Your task to perform on an android device: Clear the cart on amazon.com. Image 0: 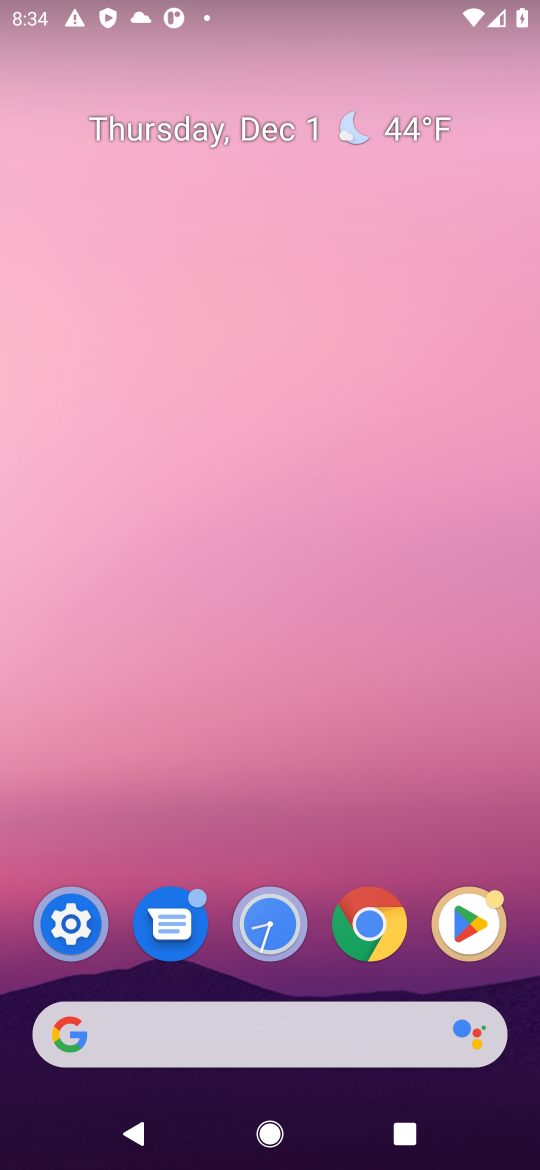
Step 0: click (189, 1006)
Your task to perform on an android device: Clear the cart on amazon.com. Image 1: 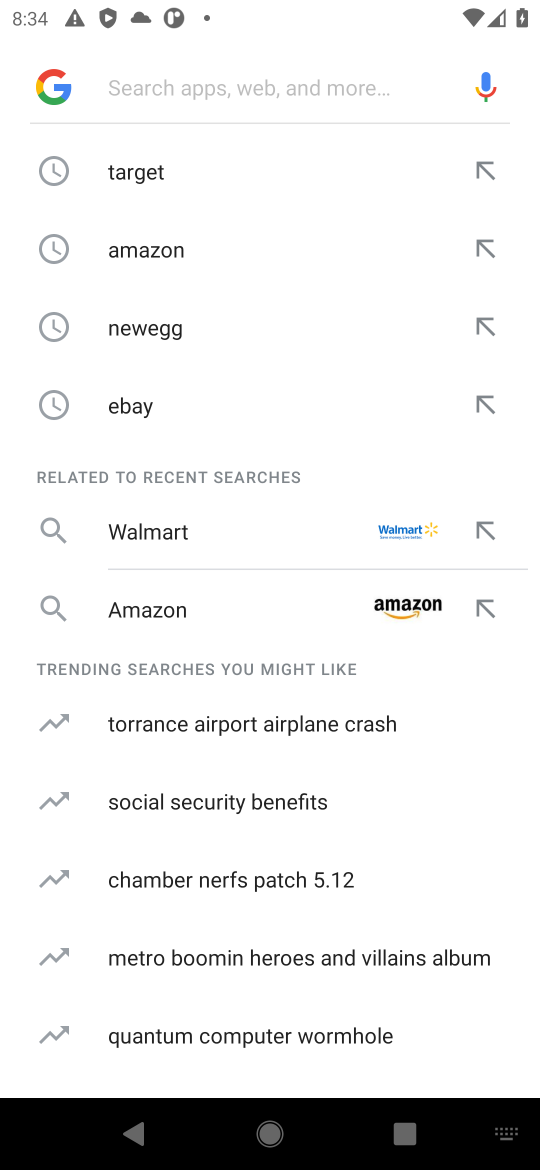
Step 1: type "amazon"
Your task to perform on an android device: Clear the cart on amazon.com. Image 2: 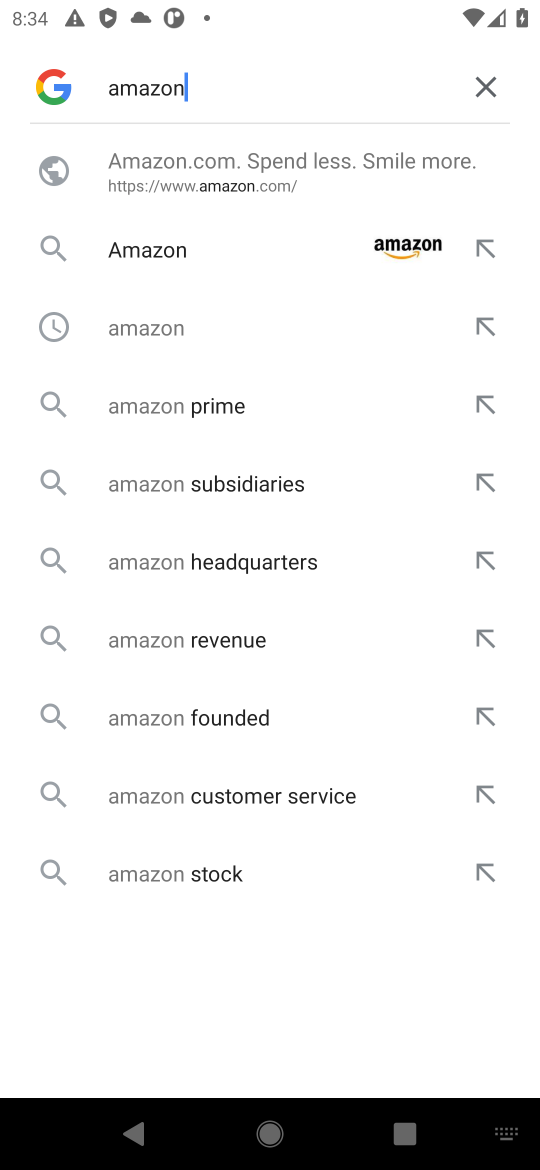
Step 2: click (196, 266)
Your task to perform on an android device: Clear the cart on amazon.com. Image 3: 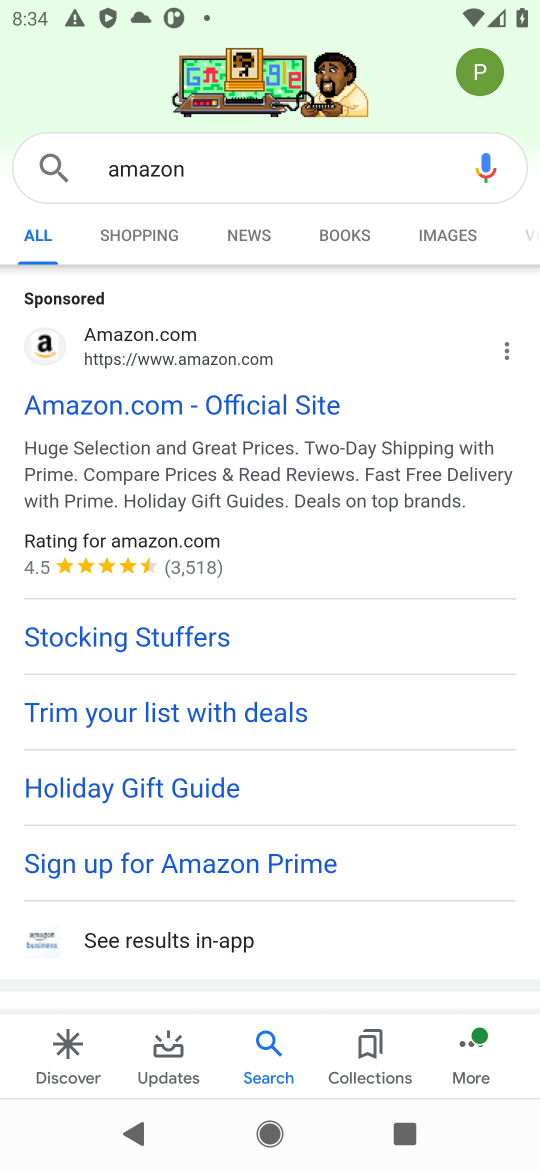
Step 3: click (48, 393)
Your task to perform on an android device: Clear the cart on amazon.com. Image 4: 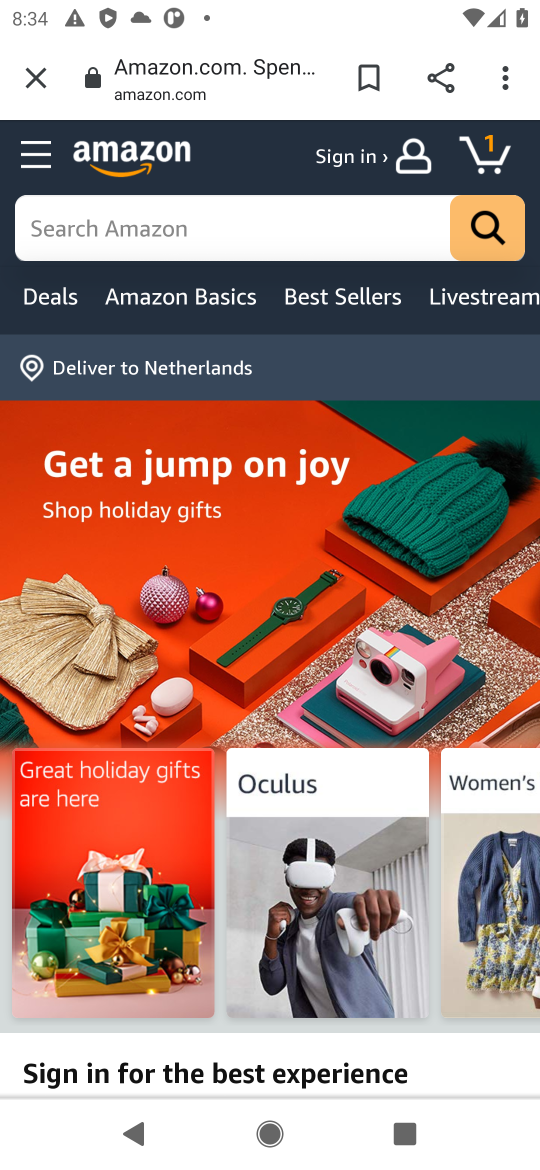
Step 4: click (174, 252)
Your task to perform on an android device: Clear the cart on amazon.com. Image 5: 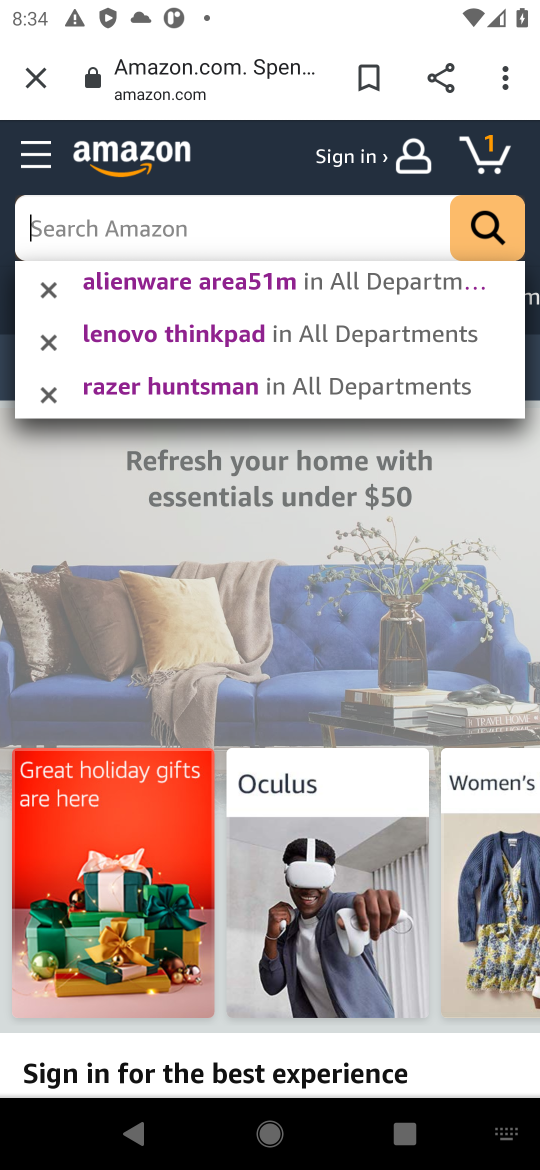
Step 5: click (482, 149)
Your task to perform on an android device: Clear the cart on amazon.com. Image 6: 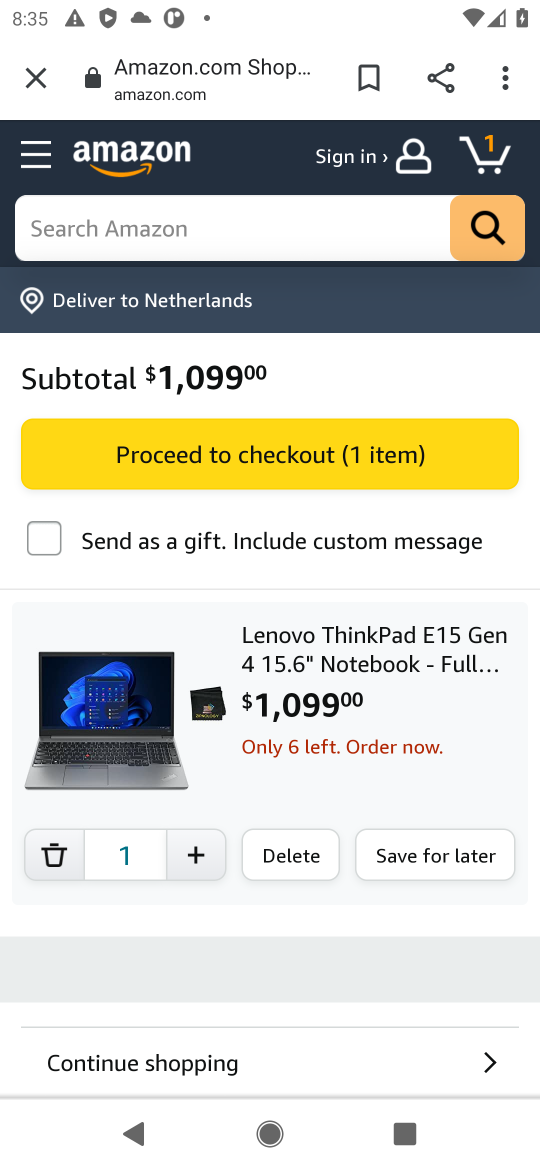
Step 6: click (275, 629)
Your task to perform on an android device: Clear the cart on amazon.com. Image 7: 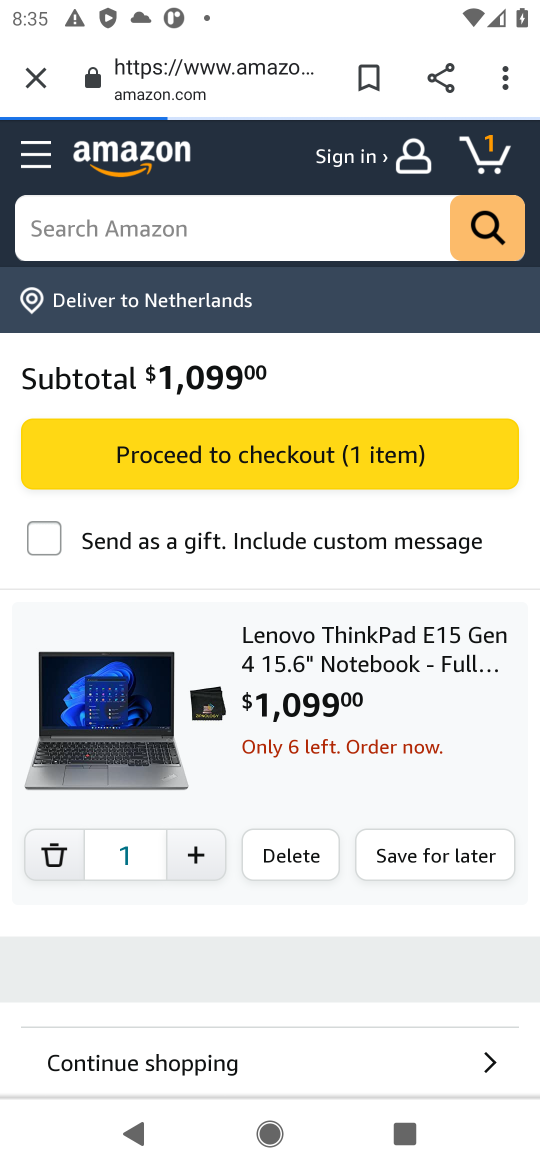
Step 7: task complete